Your task to perform on an android device: delete the emails in spam in the gmail app Image 0: 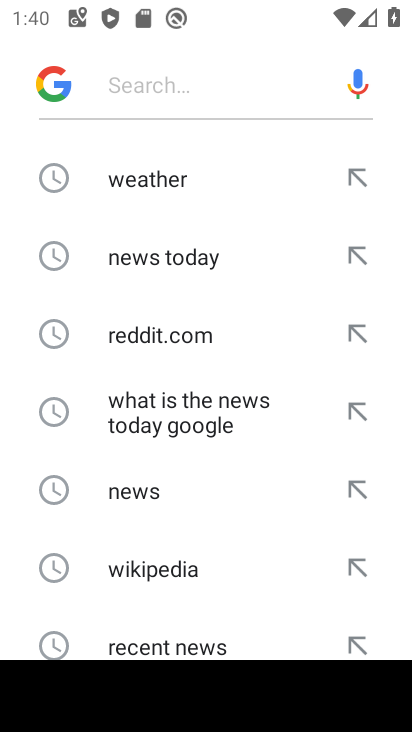
Step 0: press home button
Your task to perform on an android device: delete the emails in spam in the gmail app Image 1: 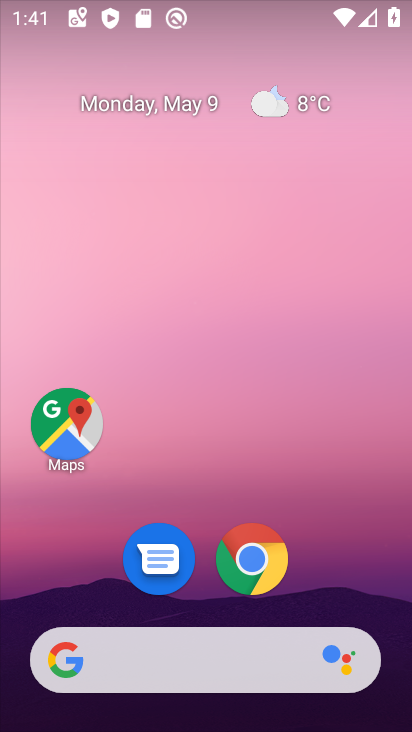
Step 1: drag from (349, 525) to (129, 79)
Your task to perform on an android device: delete the emails in spam in the gmail app Image 2: 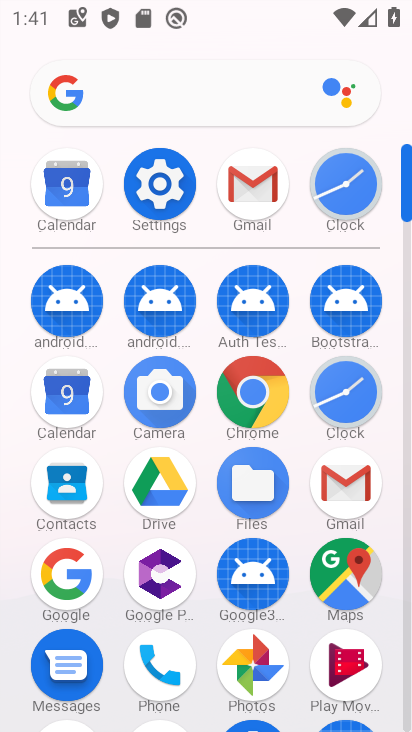
Step 2: click (245, 195)
Your task to perform on an android device: delete the emails in spam in the gmail app Image 3: 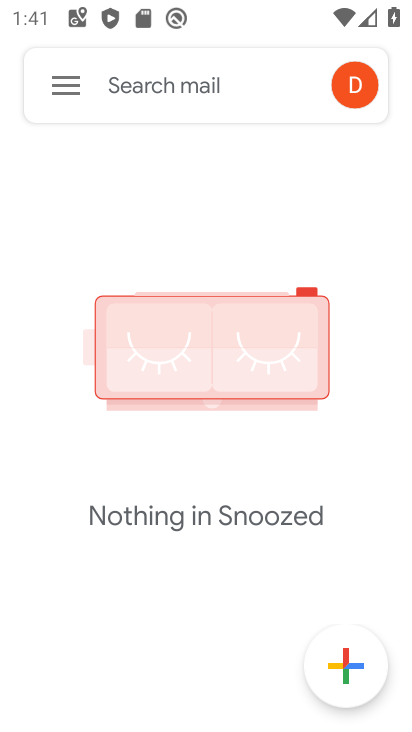
Step 3: click (65, 86)
Your task to perform on an android device: delete the emails in spam in the gmail app Image 4: 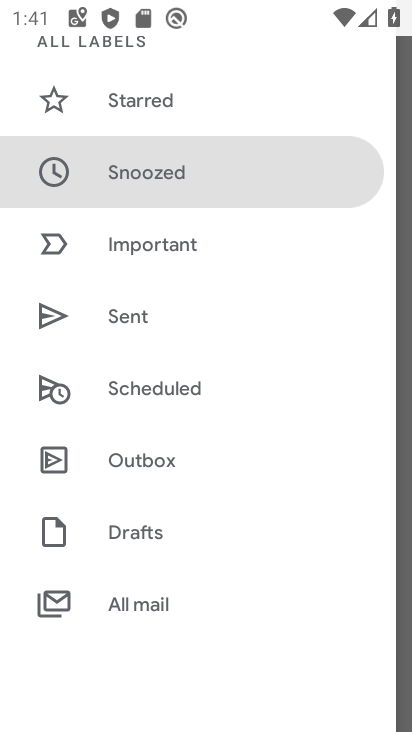
Step 4: drag from (216, 299) to (193, 652)
Your task to perform on an android device: delete the emails in spam in the gmail app Image 5: 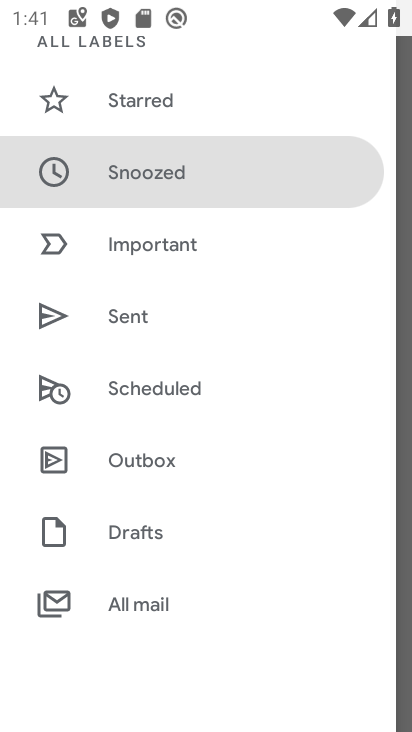
Step 5: drag from (273, 326) to (305, 693)
Your task to perform on an android device: delete the emails in spam in the gmail app Image 6: 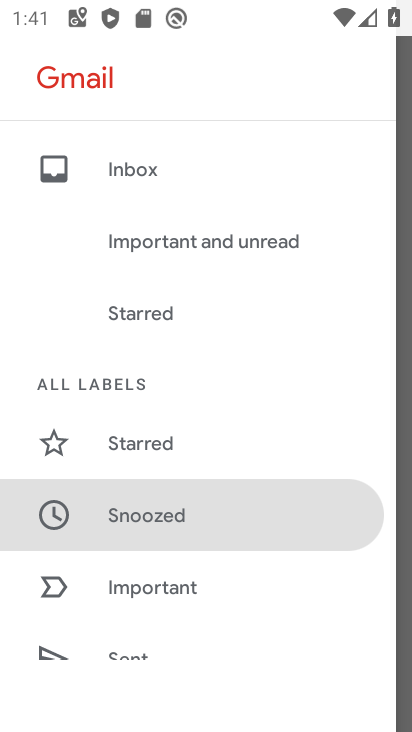
Step 6: drag from (271, 600) to (239, 235)
Your task to perform on an android device: delete the emails in spam in the gmail app Image 7: 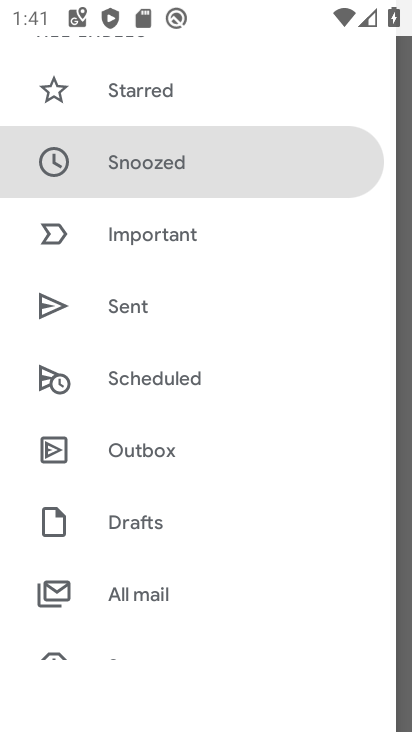
Step 7: drag from (202, 584) to (202, 302)
Your task to perform on an android device: delete the emails in spam in the gmail app Image 8: 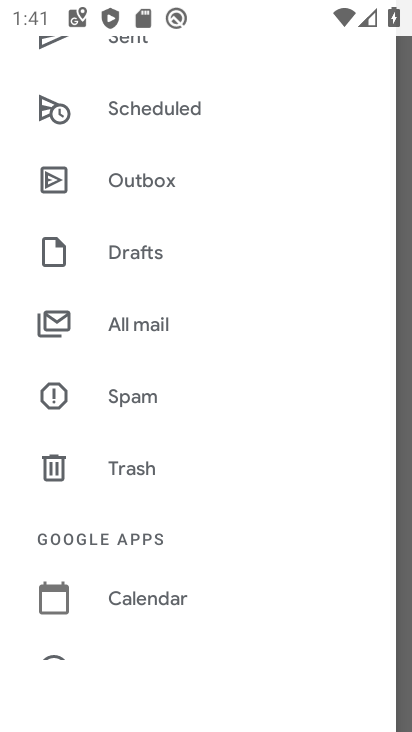
Step 8: click (118, 393)
Your task to perform on an android device: delete the emails in spam in the gmail app Image 9: 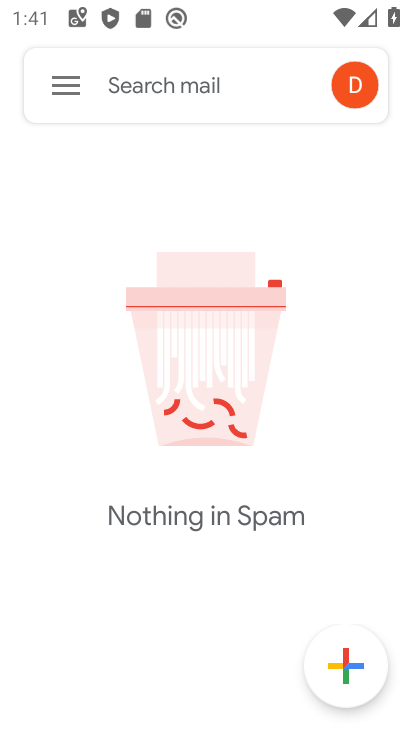
Step 9: task complete